Your task to perform on an android device: Go to ESPN.com Image 0: 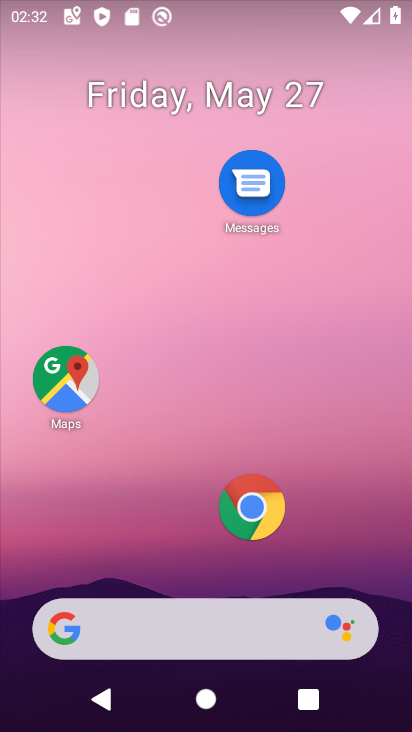
Step 0: click (247, 498)
Your task to perform on an android device: Go to ESPN.com Image 1: 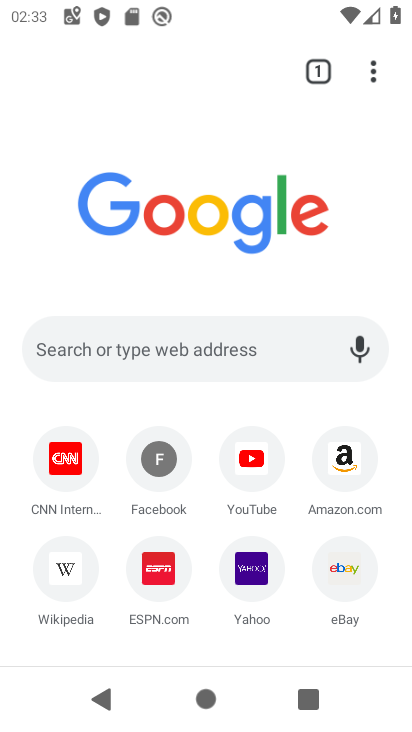
Step 1: click (162, 568)
Your task to perform on an android device: Go to ESPN.com Image 2: 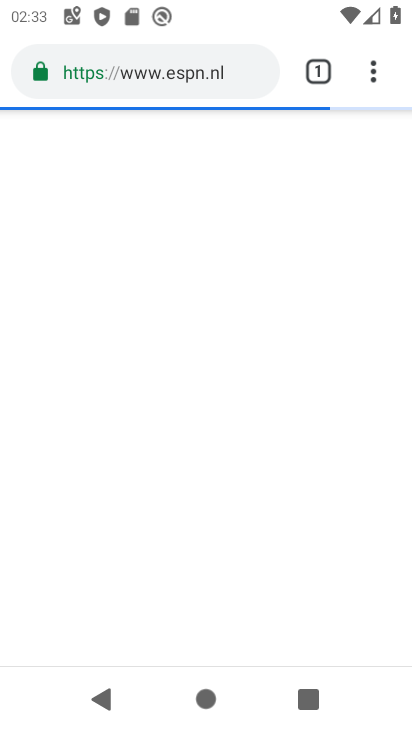
Step 2: task complete